Your task to perform on an android device: toggle airplane mode Image 0: 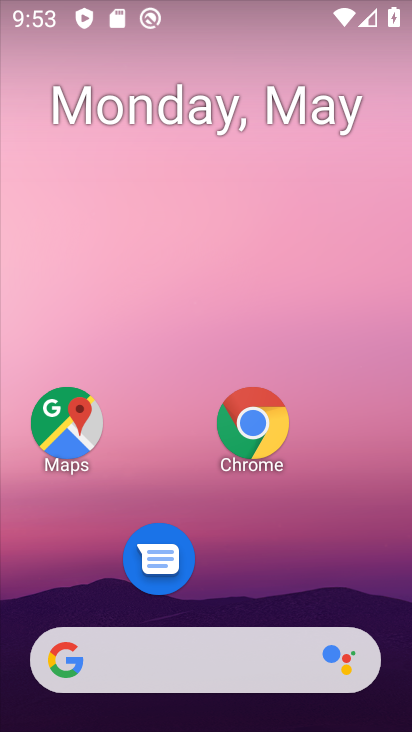
Step 0: drag from (231, 13) to (200, 471)
Your task to perform on an android device: toggle airplane mode Image 1: 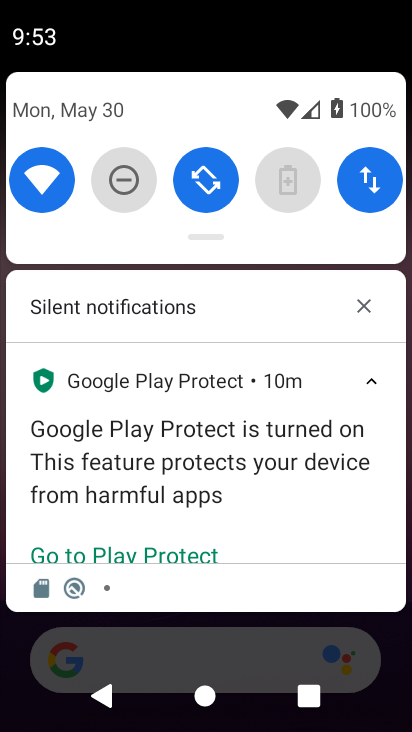
Step 1: drag from (176, 134) to (220, 519)
Your task to perform on an android device: toggle airplane mode Image 2: 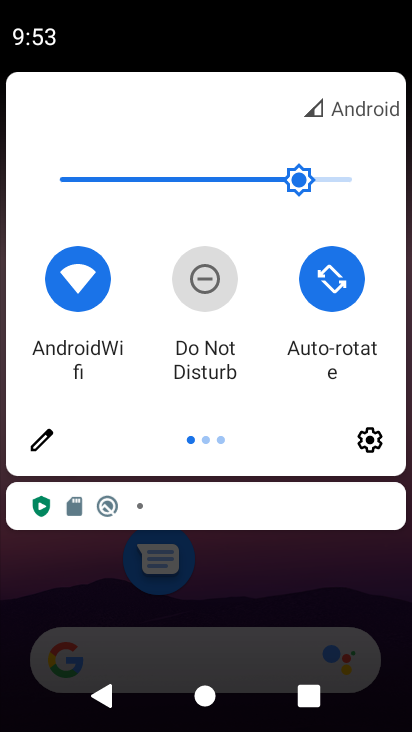
Step 2: drag from (350, 391) to (24, 378)
Your task to perform on an android device: toggle airplane mode Image 3: 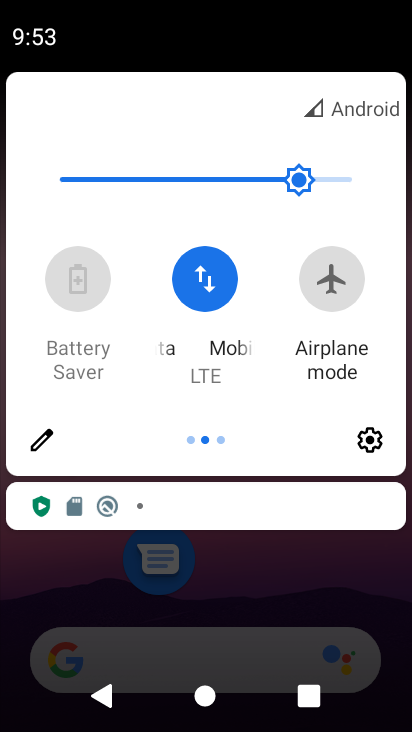
Step 3: click (316, 284)
Your task to perform on an android device: toggle airplane mode Image 4: 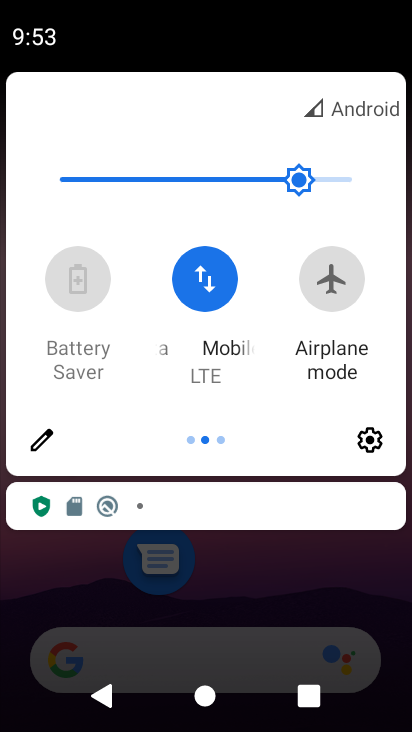
Step 4: click (316, 284)
Your task to perform on an android device: toggle airplane mode Image 5: 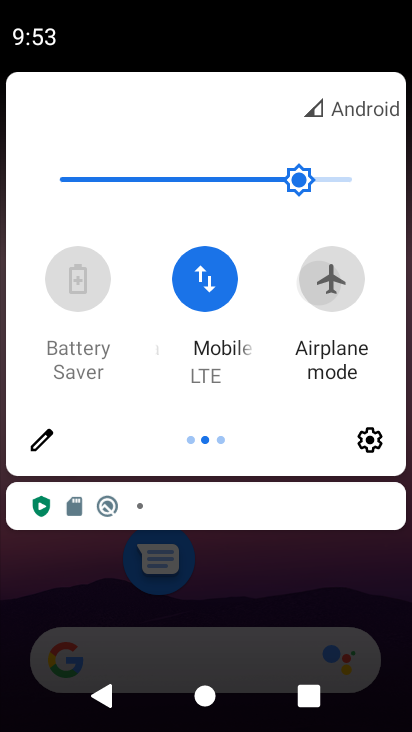
Step 5: click (316, 284)
Your task to perform on an android device: toggle airplane mode Image 6: 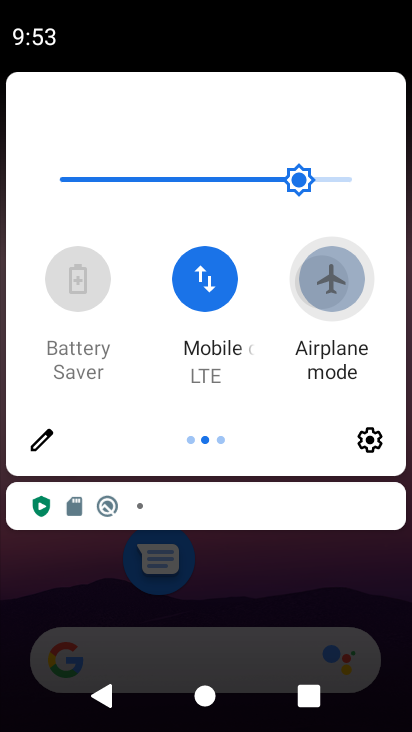
Step 6: click (316, 284)
Your task to perform on an android device: toggle airplane mode Image 7: 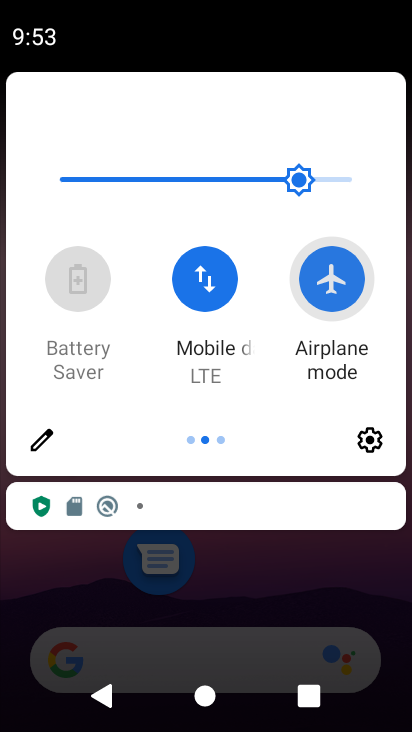
Step 7: click (316, 284)
Your task to perform on an android device: toggle airplane mode Image 8: 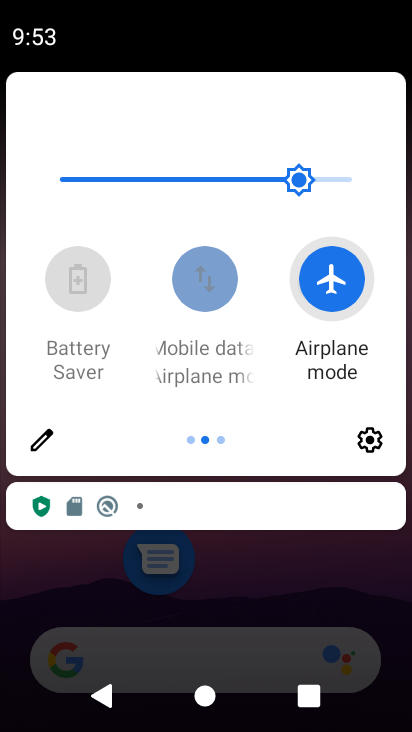
Step 8: click (316, 284)
Your task to perform on an android device: toggle airplane mode Image 9: 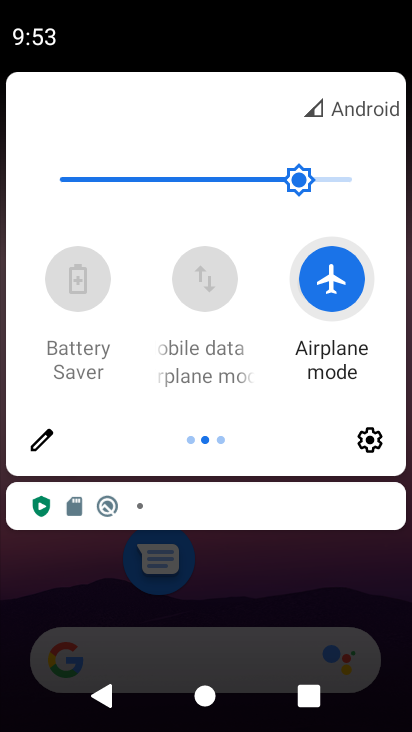
Step 9: click (316, 284)
Your task to perform on an android device: toggle airplane mode Image 10: 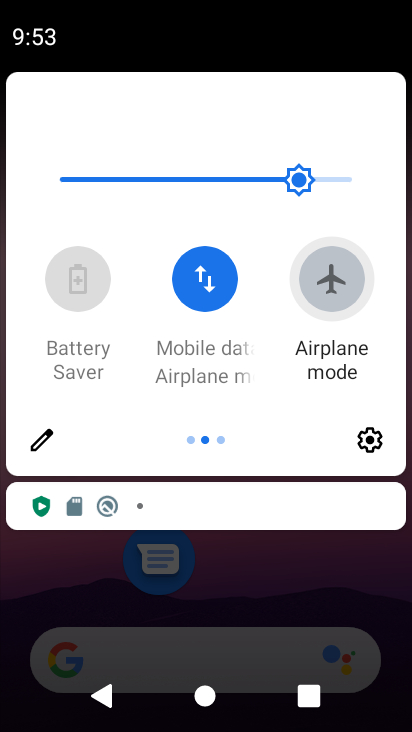
Step 10: click (316, 284)
Your task to perform on an android device: toggle airplane mode Image 11: 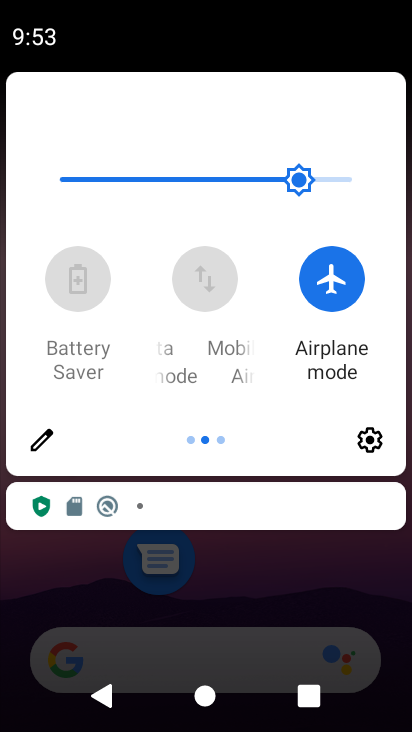
Step 11: click (316, 284)
Your task to perform on an android device: toggle airplane mode Image 12: 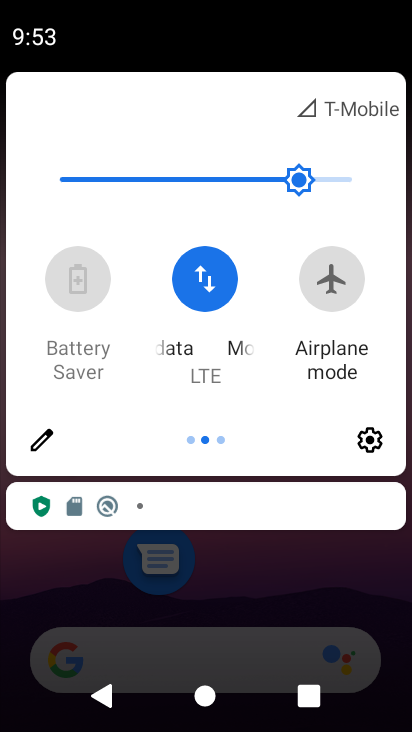
Step 12: task complete